Your task to perform on an android device: allow cookies in the chrome app Image 0: 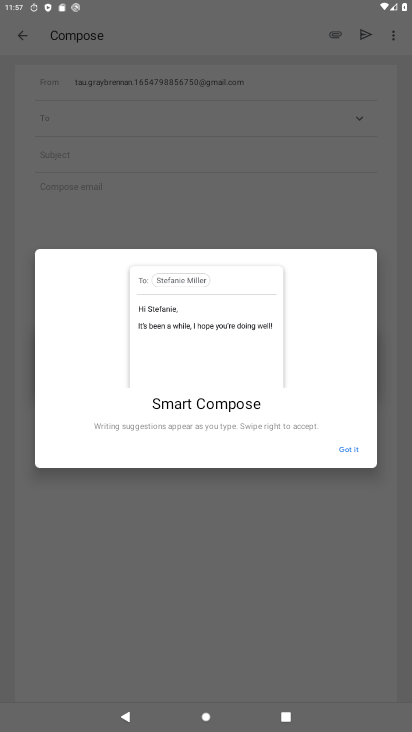
Step 0: press home button
Your task to perform on an android device: allow cookies in the chrome app Image 1: 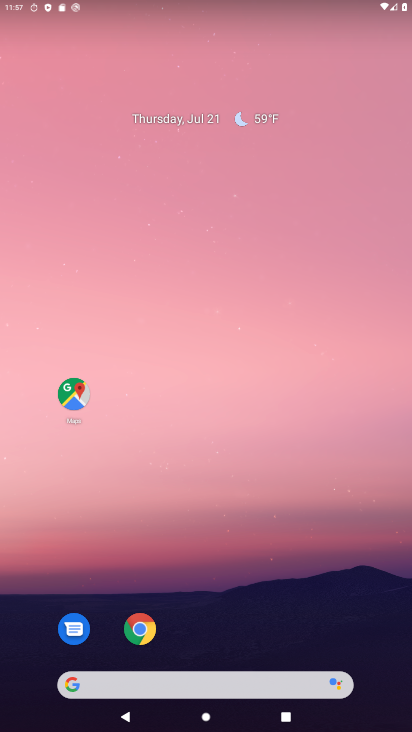
Step 1: drag from (270, 655) to (397, 46)
Your task to perform on an android device: allow cookies in the chrome app Image 2: 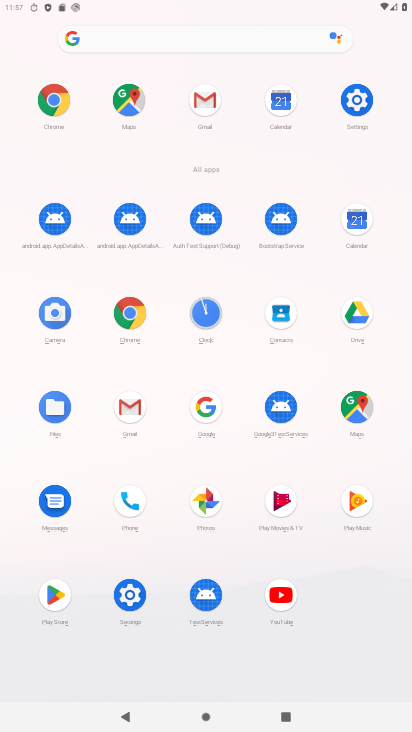
Step 2: click (127, 310)
Your task to perform on an android device: allow cookies in the chrome app Image 3: 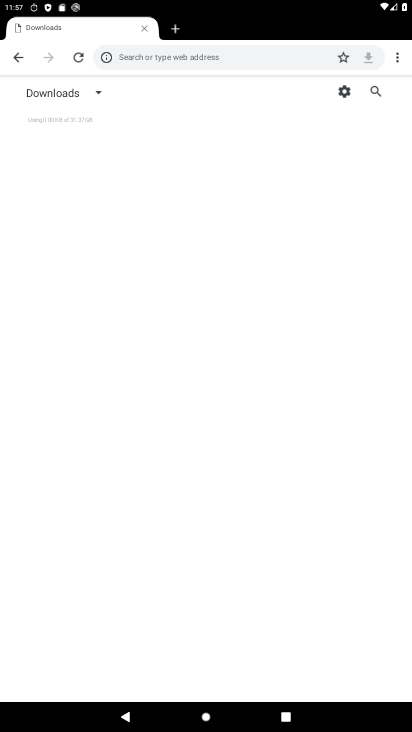
Step 3: drag from (401, 62) to (321, 257)
Your task to perform on an android device: allow cookies in the chrome app Image 4: 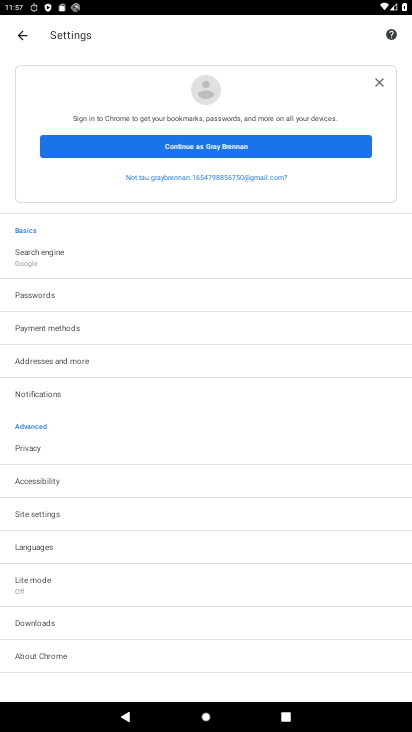
Step 4: click (42, 508)
Your task to perform on an android device: allow cookies in the chrome app Image 5: 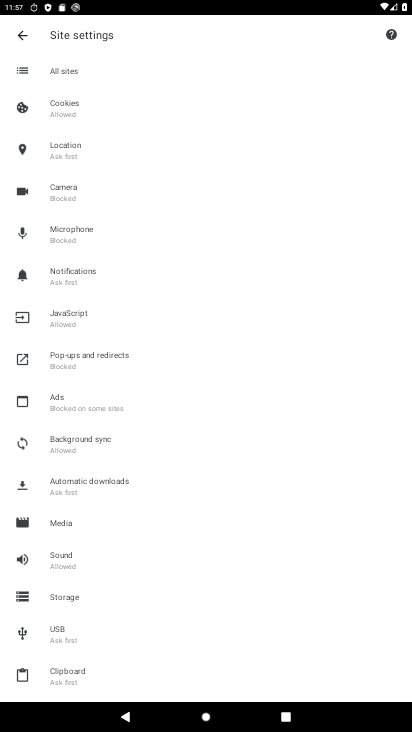
Step 5: task complete